Your task to perform on an android device: snooze an email in the gmail app Image 0: 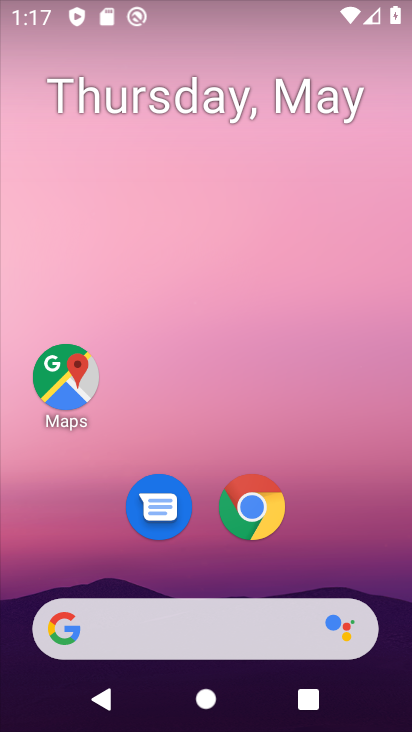
Step 0: drag from (331, 531) to (352, 149)
Your task to perform on an android device: snooze an email in the gmail app Image 1: 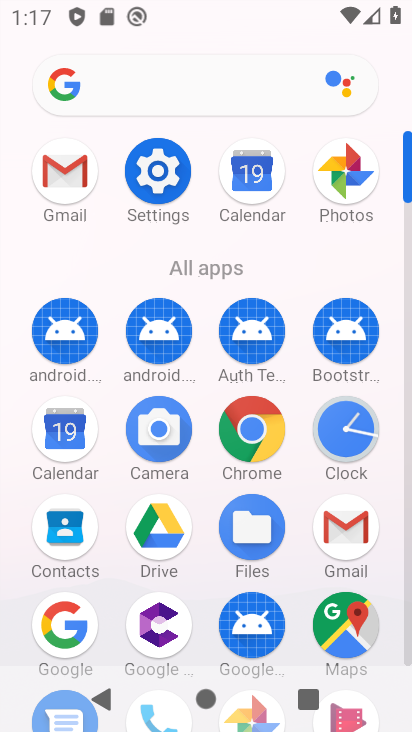
Step 1: click (56, 170)
Your task to perform on an android device: snooze an email in the gmail app Image 2: 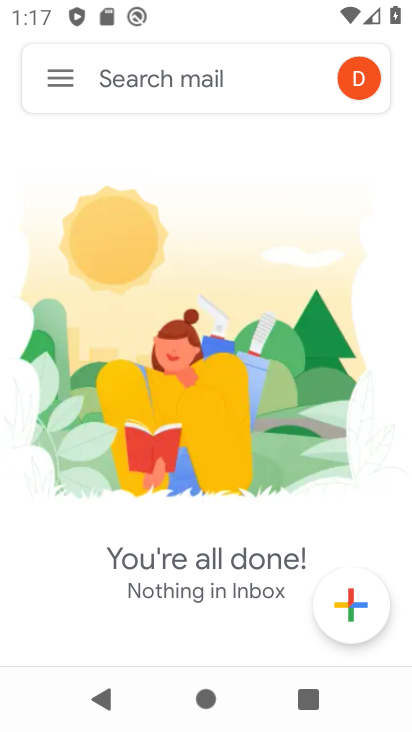
Step 2: click (43, 76)
Your task to perform on an android device: snooze an email in the gmail app Image 3: 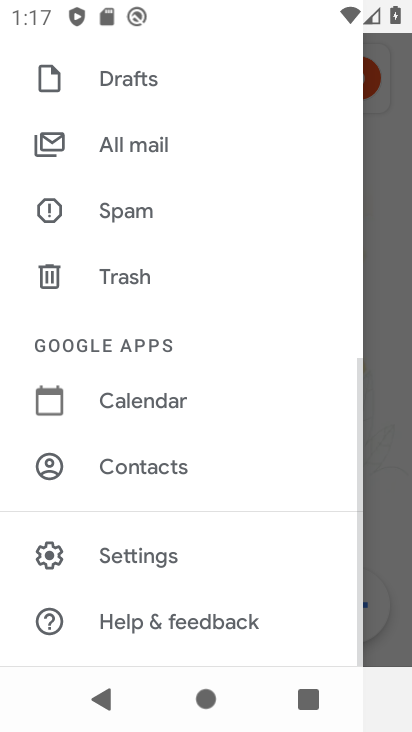
Step 3: click (128, 555)
Your task to perform on an android device: snooze an email in the gmail app Image 4: 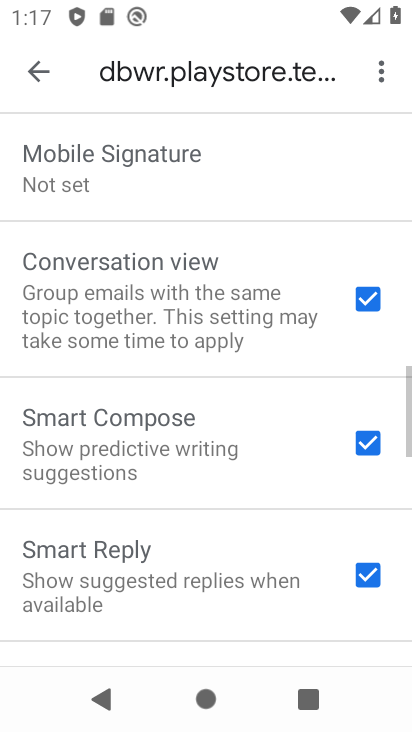
Step 4: drag from (202, 173) to (147, 631)
Your task to perform on an android device: snooze an email in the gmail app Image 5: 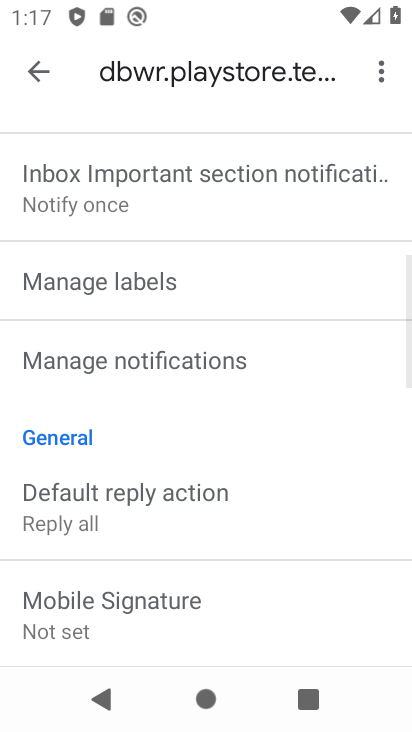
Step 5: drag from (171, 143) to (136, 671)
Your task to perform on an android device: snooze an email in the gmail app Image 6: 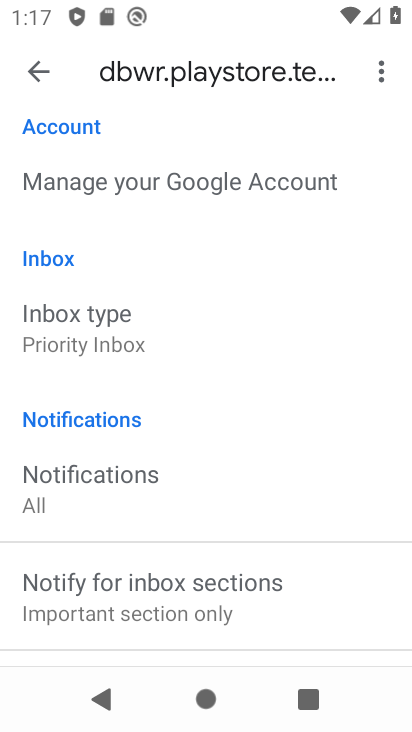
Step 6: drag from (213, 278) to (337, 159)
Your task to perform on an android device: snooze an email in the gmail app Image 7: 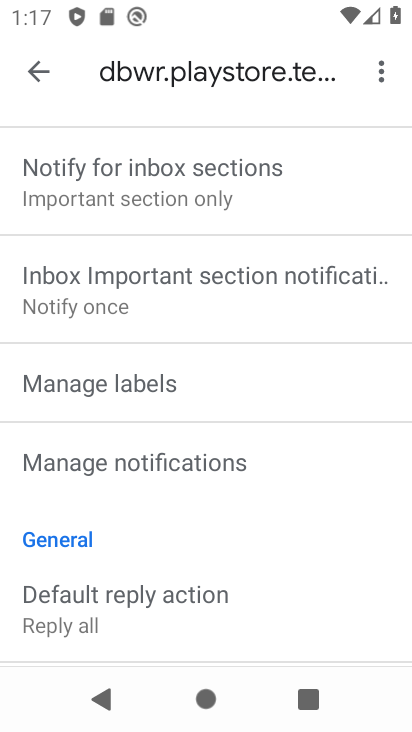
Step 7: drag from (157, 522) to (259, 196)
Your task to perform on an android device: snooze an email in the gmail app Image 8: 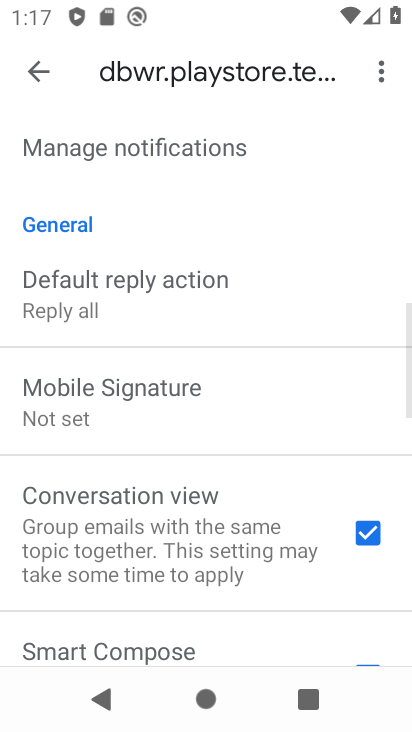
Step 8: click (47, 52)
Your task to perform on an android device: snooze an email in the gmail app Image 9: 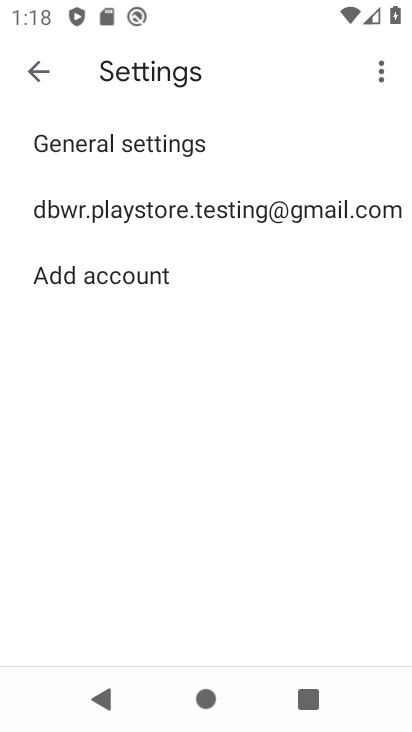
Step 9: click (46, 61)
Your task to perform on an android device: snooze an email in the gmail app Image 10: 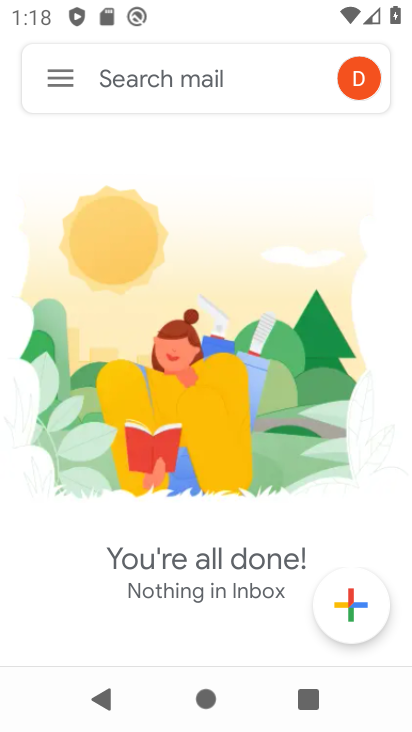
Step 10: click (54, 85)
Your task to perform on an android device: snooze an email in the gmail app Image 11: 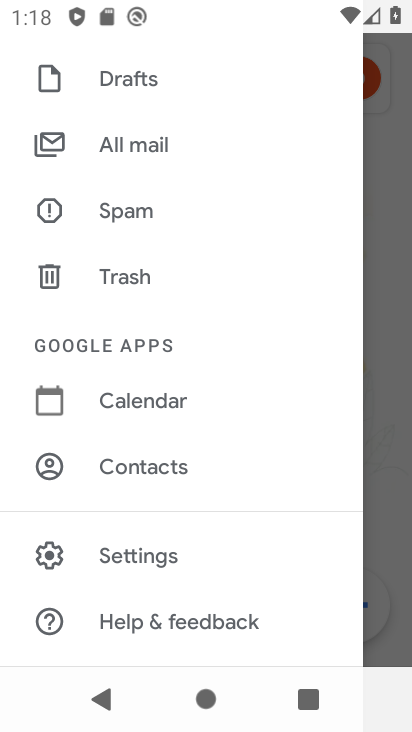
Step 11: drag from (190, 108) to (200, 487)
Your task to perform on an android device: snooze an email in the gmail app Image 12: 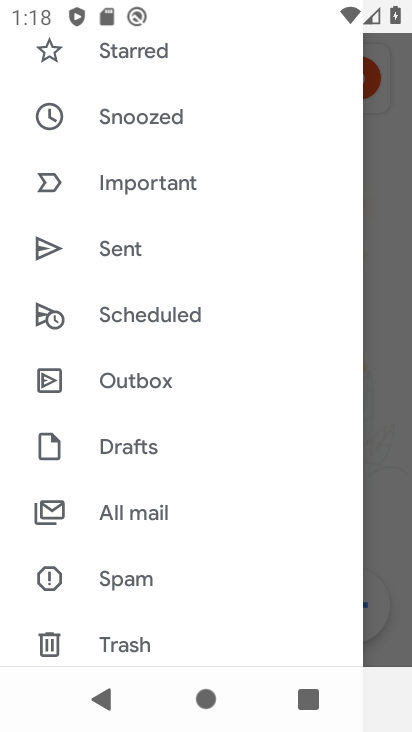
Step 12: click (161, 122)
Your task to perform on an android device: snooze an email in the gmail app Image 13: 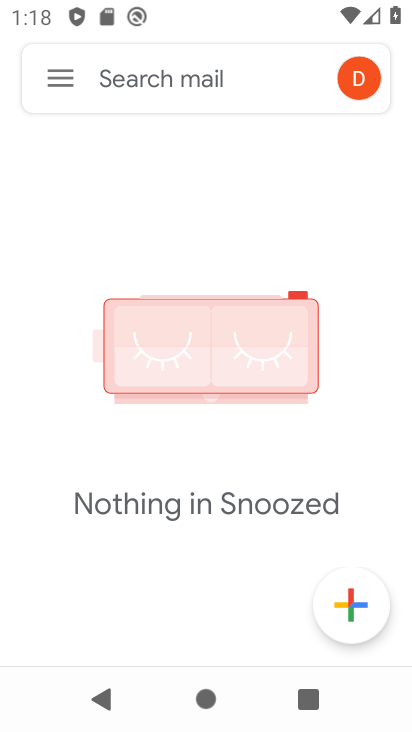
Step 13: task complete